Your task to perform on an android device: move a message to another label in the gmail app Image 0: 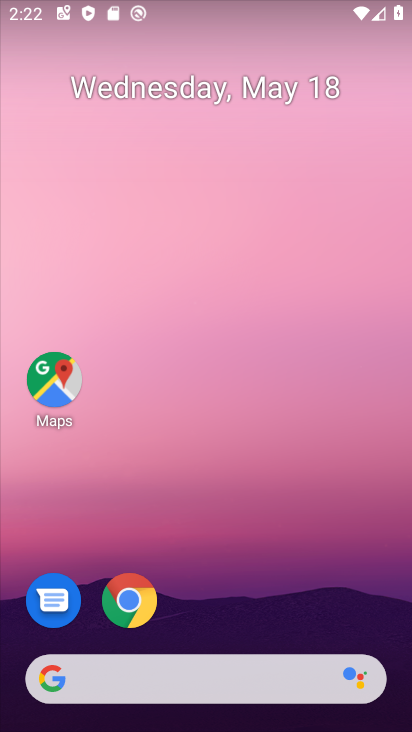
Step 0: drag from (228, 598) to (258, 3)
Your task to perform on an android device: move a message to another label in the gmail app Image 1: 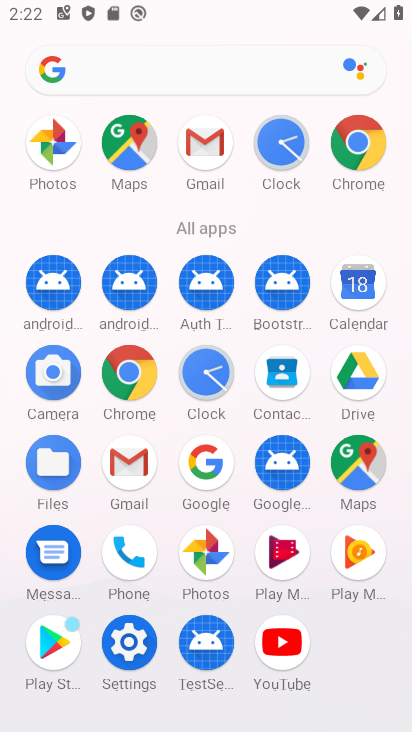
Step 1: click (124, 462)
Your task to perform on an android device: move a message to another label in the gmail app Image 2: 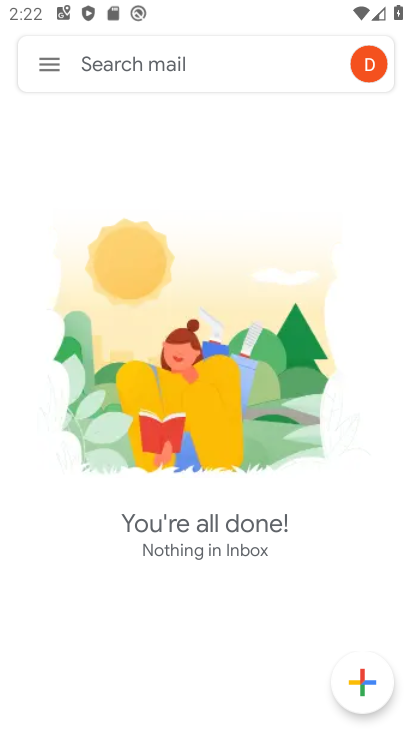
Step 2: click (51, 70)
Your task to perform on an android device: move a message to another label in the gmail app Image 3: 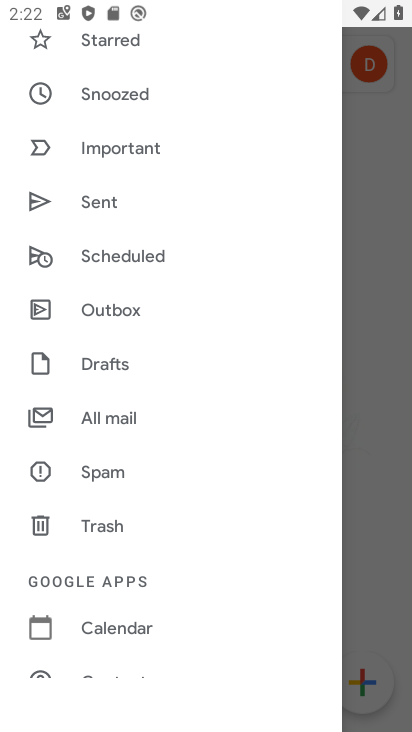
Step 3: click (119, 425)
Your task to perform on an android device: move a message to another label in the gmail app Image 4: 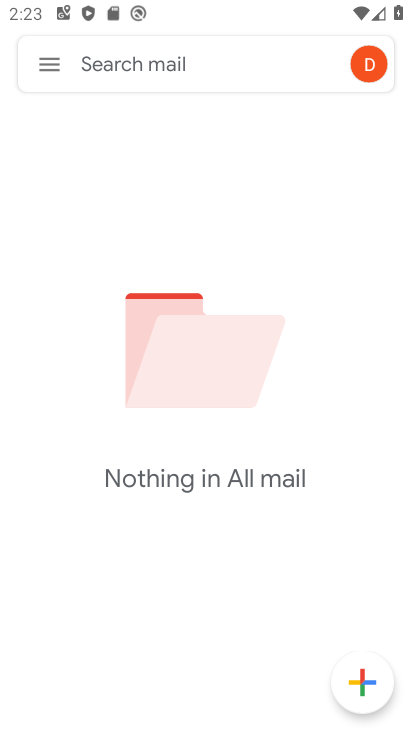
Step 4: task complete